Your task to perform on an android device: Open location settings Image 0: 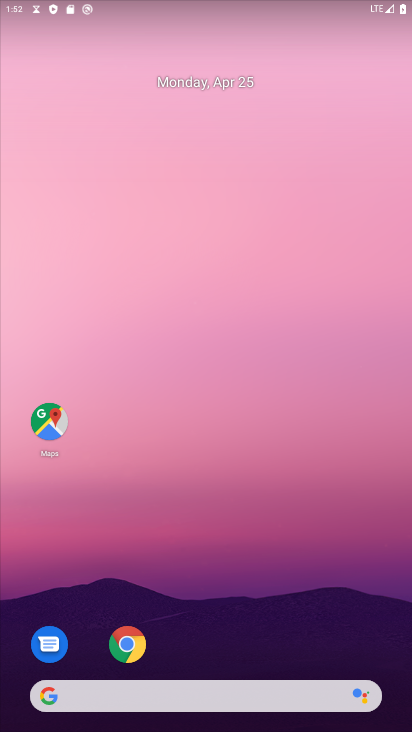
Step 0: drag from (368, 601) to (370, 98)
Your task to perform on an android device: Open location settings Image 1: 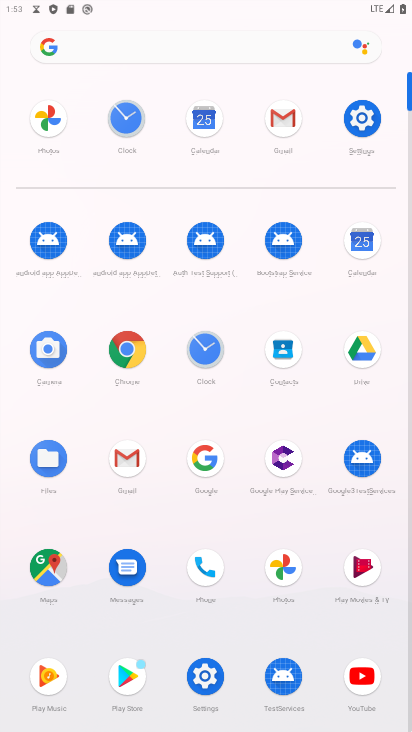
Step 1: click (362, 113)
Your task to perform on an android device: Open location settings Image 2: 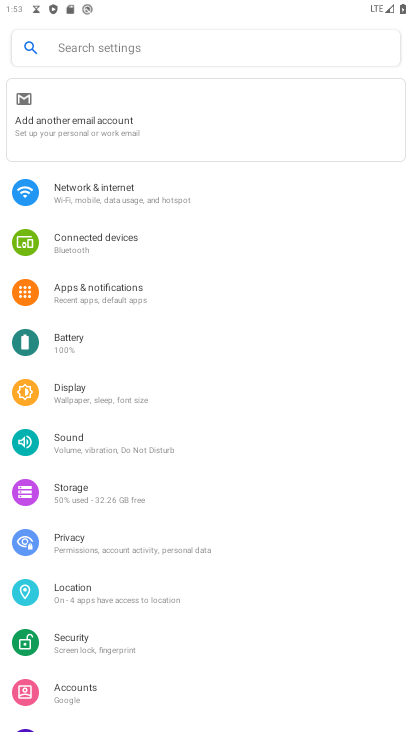
Step 2: click (70, 599)
Your task to perform on an android device: Open location settings Image 3: 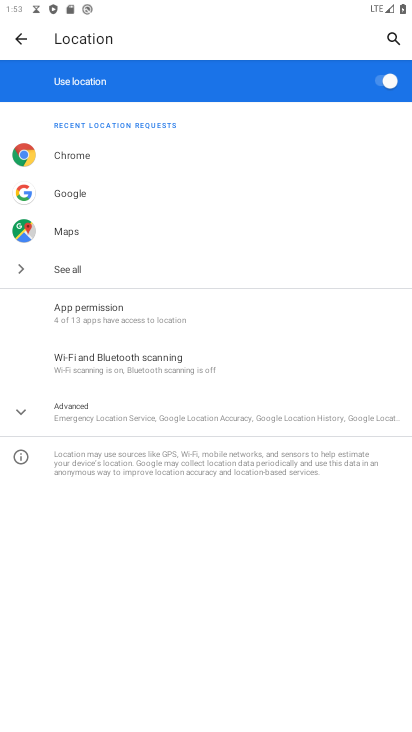
Step 3: task complete